Your task to perform on an android device: empty trash in google photos Image 0: 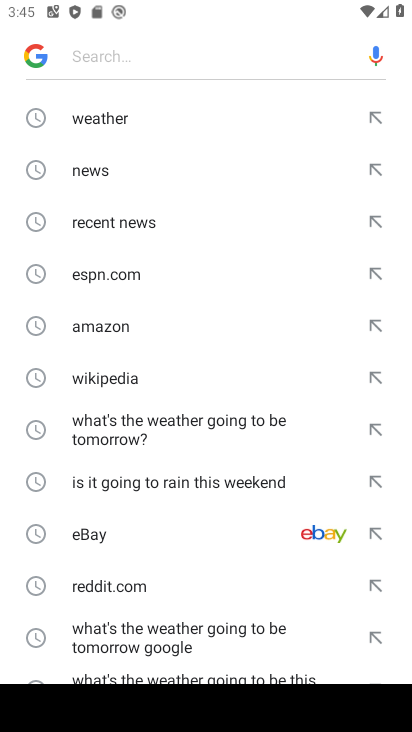
Step 0: press home button
Your task to perform on an android device: empty trash in google photos Image 1: 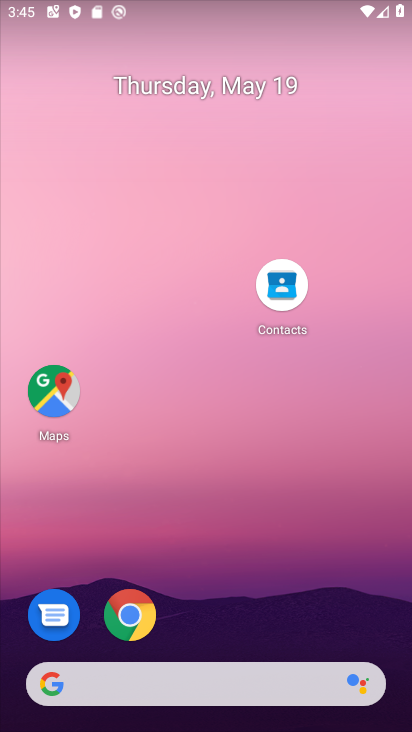
Step 1: drag from (245, 533) to (303, 126)
Your task to perform on an android device: empty trash in google photos Image 2: 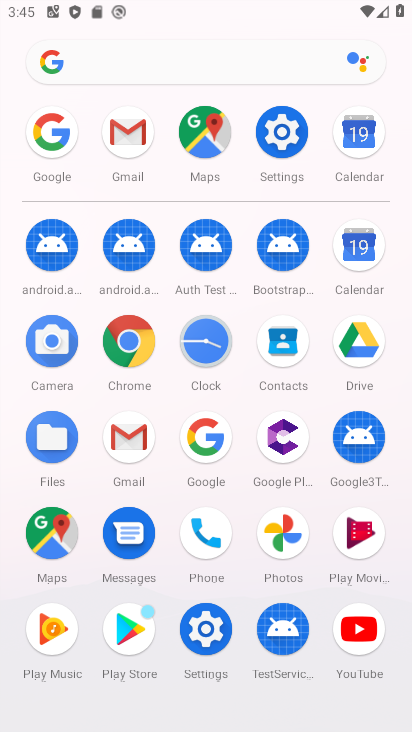
Step 2: click (283, 544)
Your task to perform on an android device: empty trash in google photos Image 3: 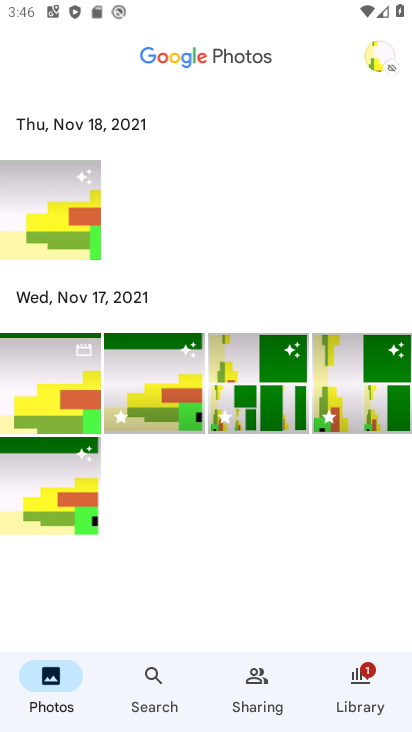
Step 3: task complete